Your task to perform on an android device: Search for vegetarian restaurants on Maps Image 0: 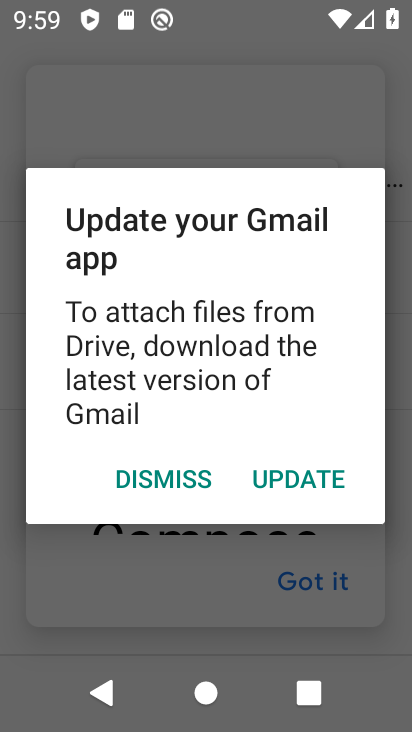
Step 0: press home button
Your task to perform on an android device: Search for vegetarian restaurants on Maps Image 1: 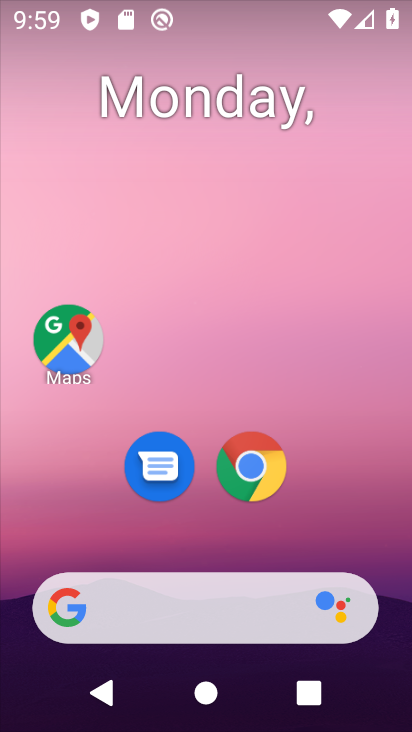
Step 1: click (65, 343)
Your task to perform on an android device: Search for vegetarian restaurants on Maps Image 2: 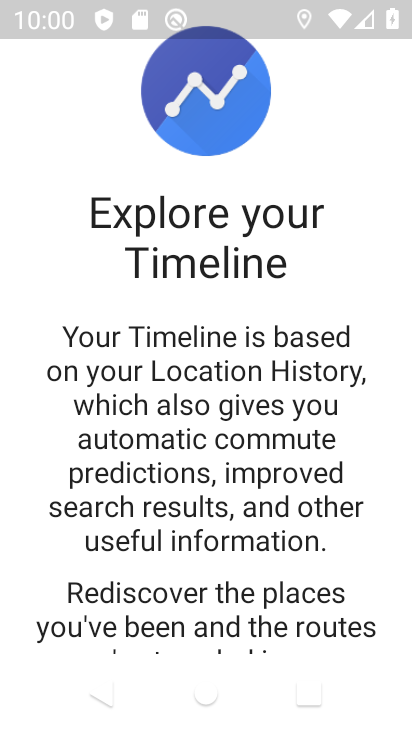
Step 2: drag from (298, 540) to (307, 127)
Your task to perform on an android device: Search for vegetarian restaurants on Maps Image 3: 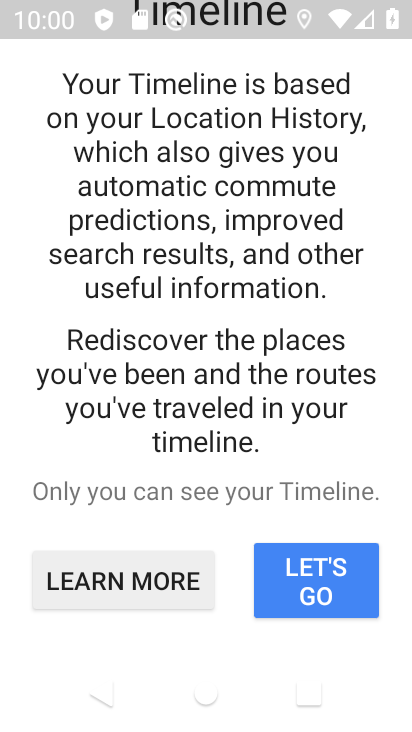
Step 3: click (301, 575)
Your task to perform on an android device: Search for vegetarian restaurants on Maps Image 4: 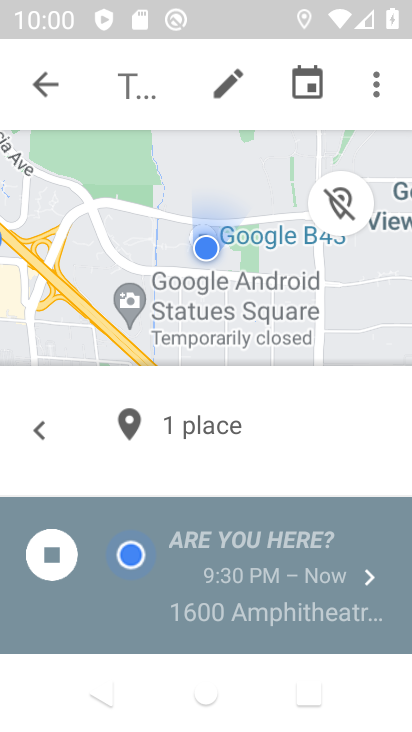
Step 4: click (227, 83)
Your task to perform on an android device: Search for vegetarian restaurants on Maps Image 5: 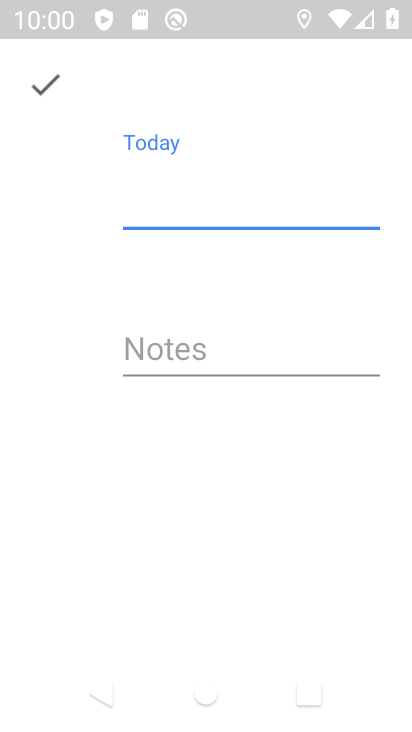
Step 5: click (25, 78)
Your task to perform on an android device: Search for vegetarian restaurants on Maps Image 6: 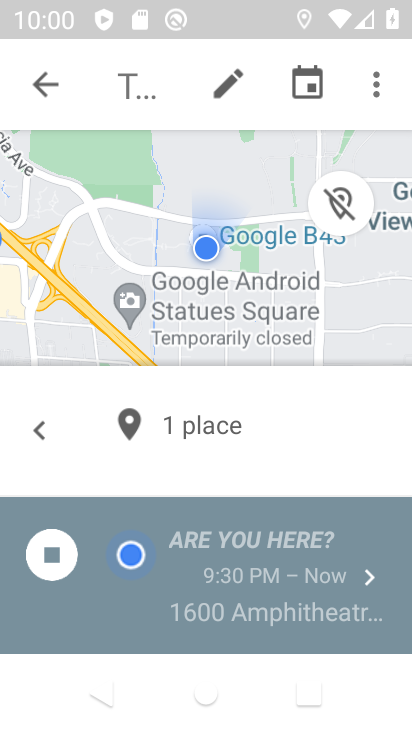
Step 6: click (31, 89)
Your task to perform on an android device: Search for vegetarian restaurants on Maps Image 7: 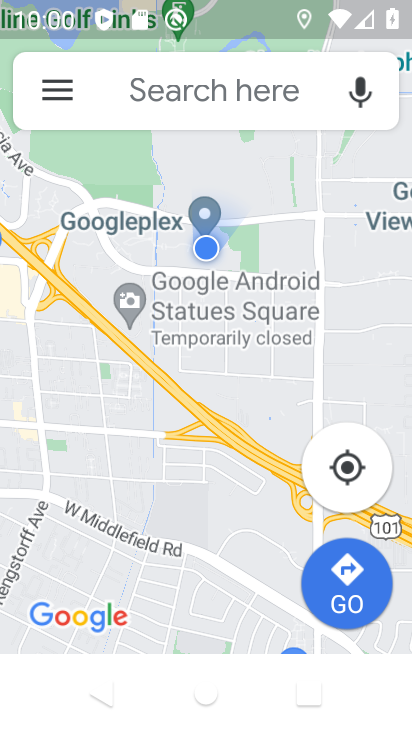
Step 7: click (183, 108)
Your task to perform on an android device: Search for vegetarian restaurants on Maps Image 8: 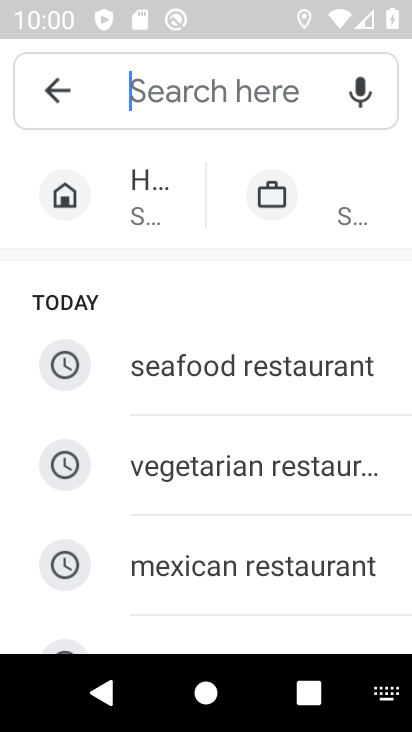
Step 8: type "vegetarian restaurants"
Your task to perform on an android device: Search for vegetarian restaurants on Maps Image 9: 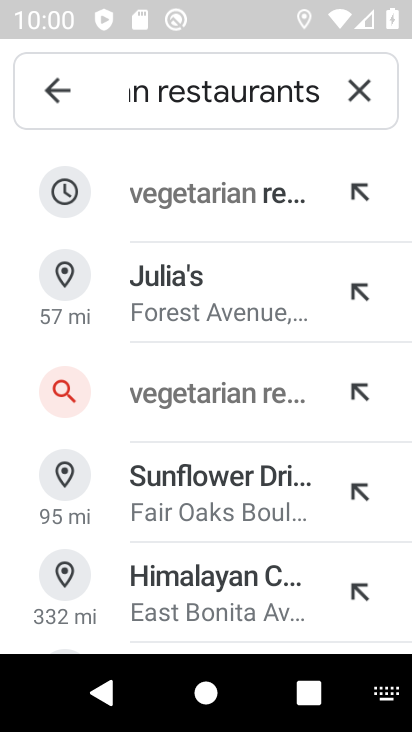
Step 9: click (176, 195)
Your task to perform on an android device: Search for vegetarian restaurants on Maps Image 10: 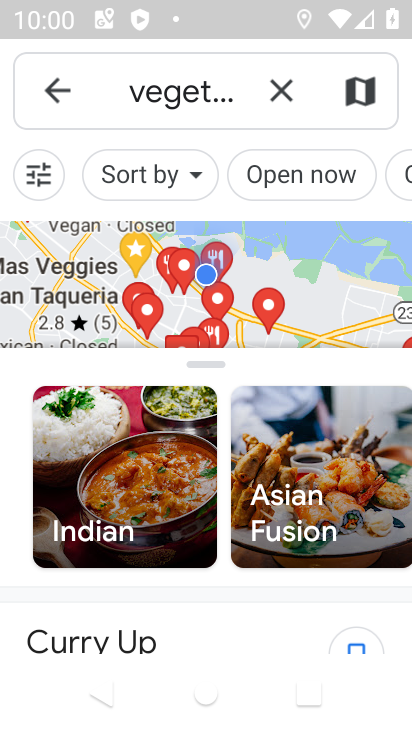
Step 10: task complete